Your task to perform on an android device: turn off notifications settings in the gmail app Image 0: 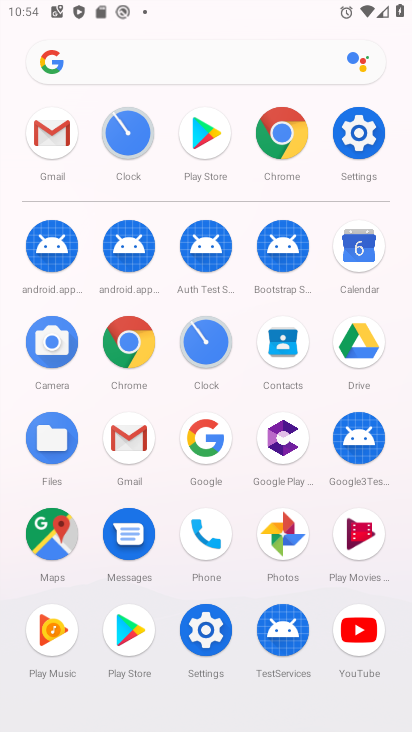
Step 0: press home button
Your task to perform on an android device: turn off notifications settings in the gmail app Image 1: 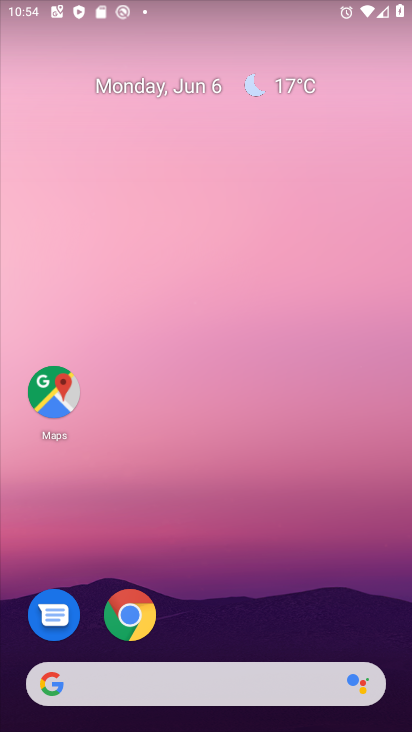
Step 1: drag from (224, 638) to (235, 63)
Your task to perform on an android device: turn off notifications settings in the gmail app Image 2: 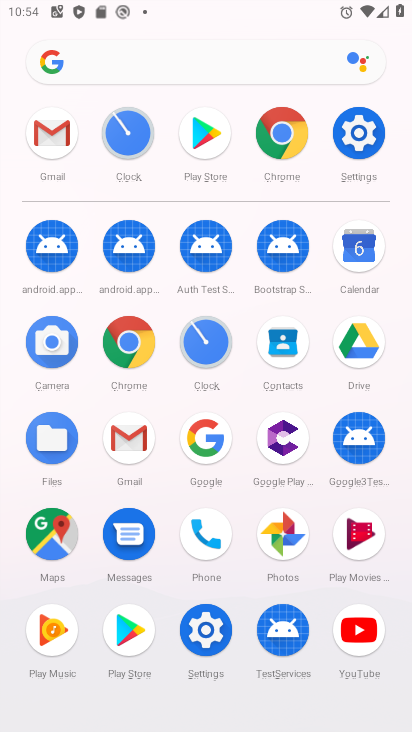
Step 2: click (49, 126)
Your task to perform on an android device: turn off notifications settings in the gmail app Image 3: 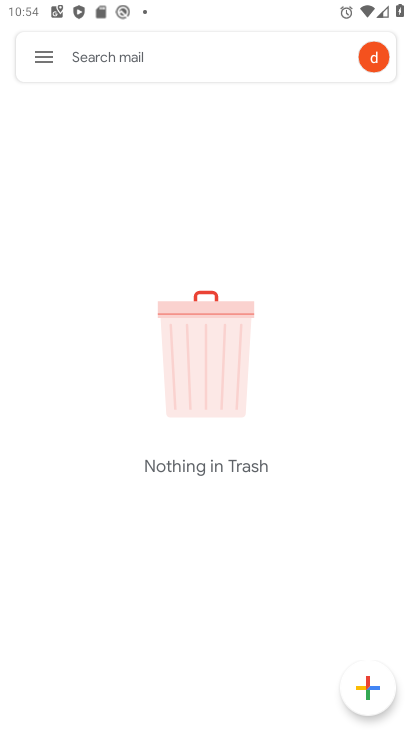
Step 3: click (41, 55)
Your task to perform on an android device: turn off notifications settings in the gmail app Image 4: 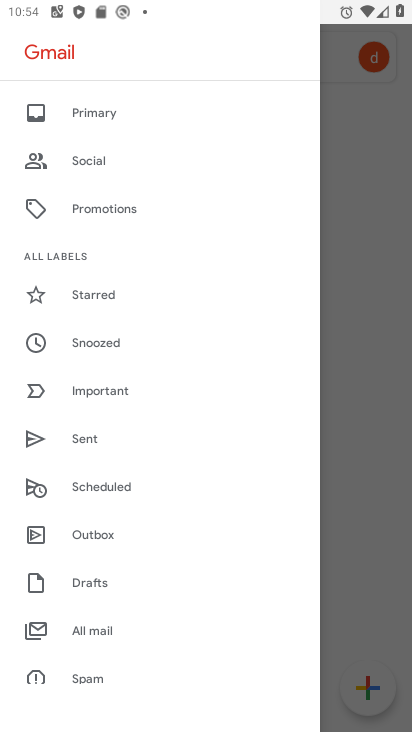
Step 4: drag from (145, 671) to (117, 74)
Your task to perform on an android device: turn off notifications settings in the gmail app Image 5: 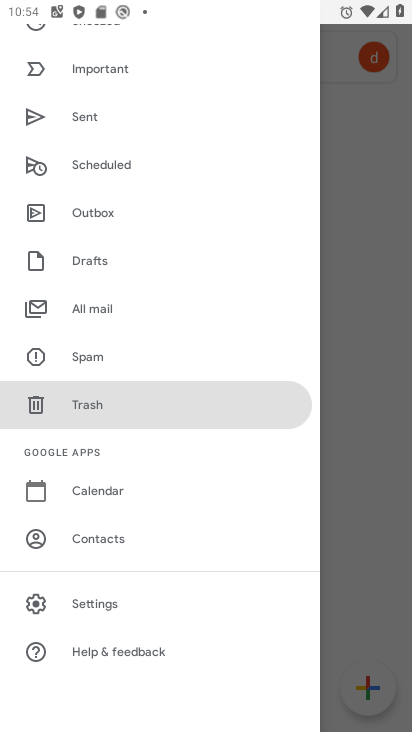
Step 5: click (123, 597)
Your task to perform on an android device: turn off notifications settings in the gmail app Image 6: 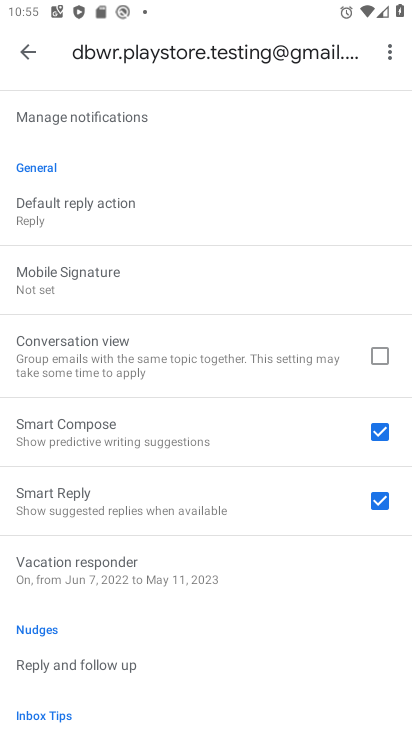
Step 6: click (27, 54)
Your task to perform on an android device: turn off notifications settings in the gmail app Image 7: 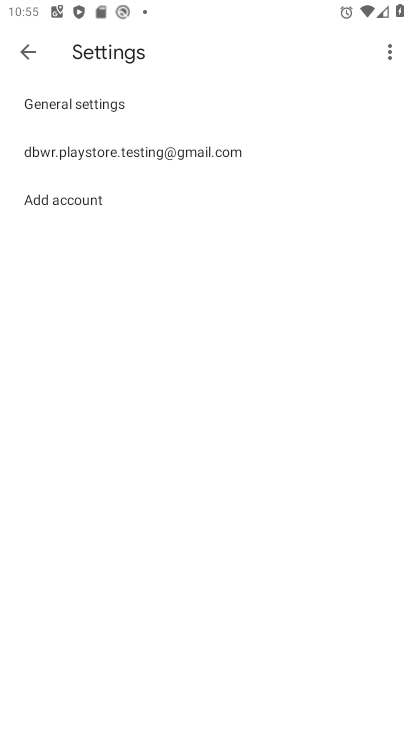
Step 7: click (134, 94)
Your task to perform on an android device: turn off notifications settings in the gmail app Image 8: 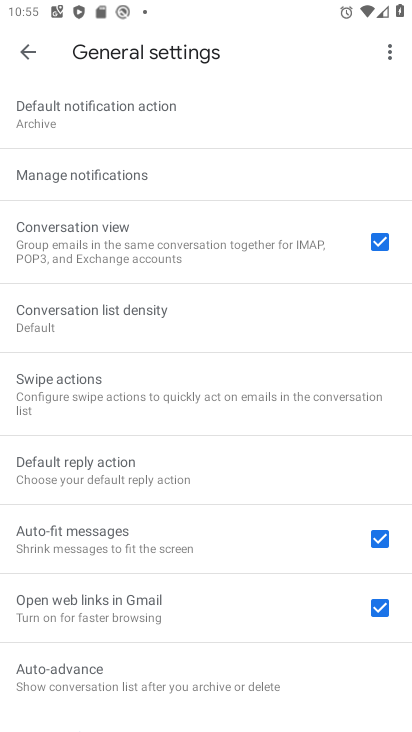
Step 8: click (163, 182)
Your task to perform on an android device: turn off notifications settings in the gmail app Image 9: 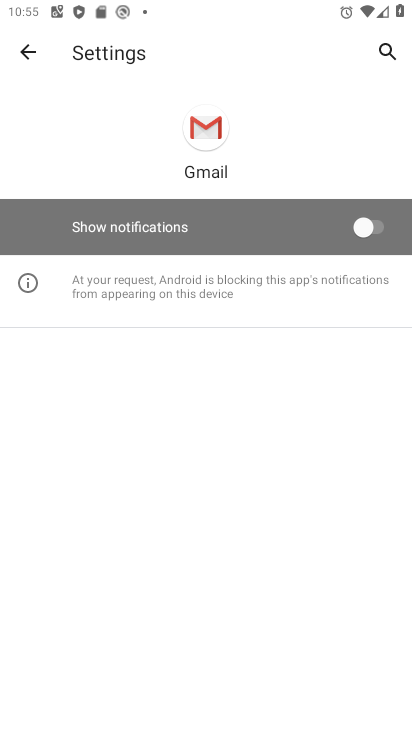
Step 9: click (175, 180)
Your task to perform on an android device: turn off notifications settings in the gmail app Image 10: 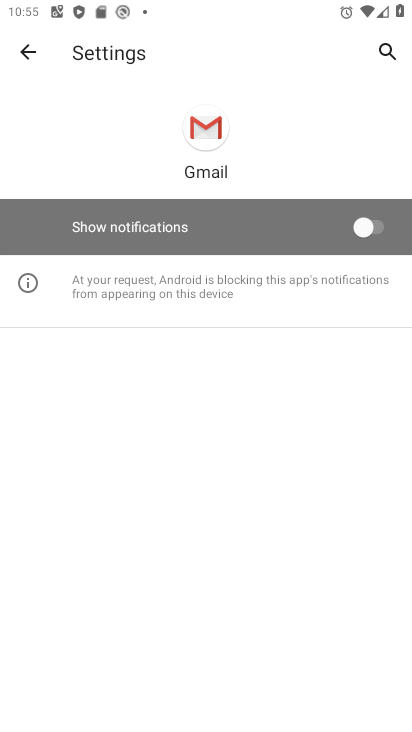
Step 10: task complete